Your task to perform on an android device: Open eBay Image 0: 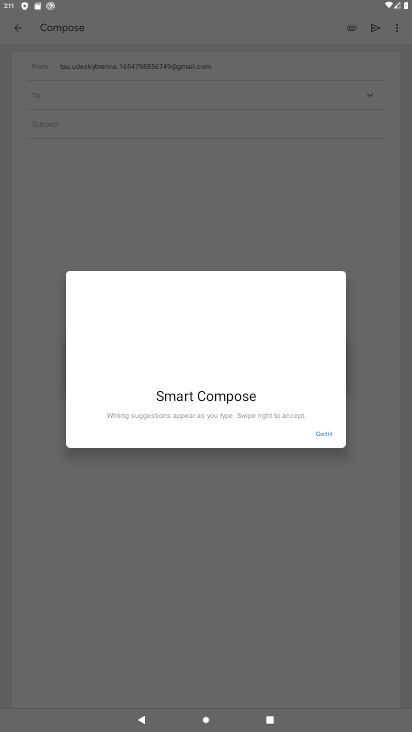
Step 0: press home button
Your task to perform on an android device: Open eBay Image 1: 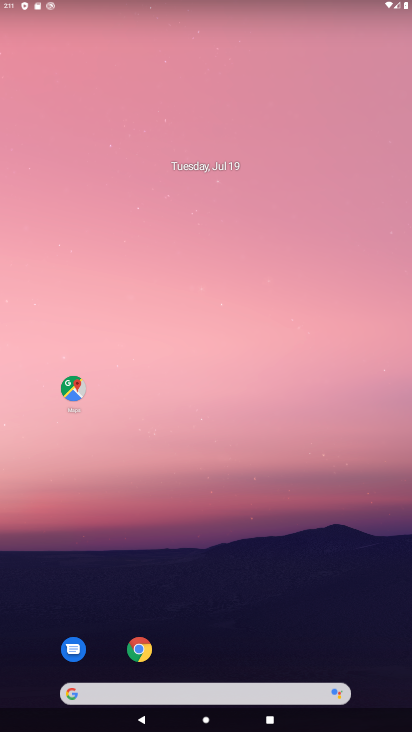
Step 1: drag from (217, 648) to (233, 101)
Your task to perform on an android device: Open eBay Image 2: 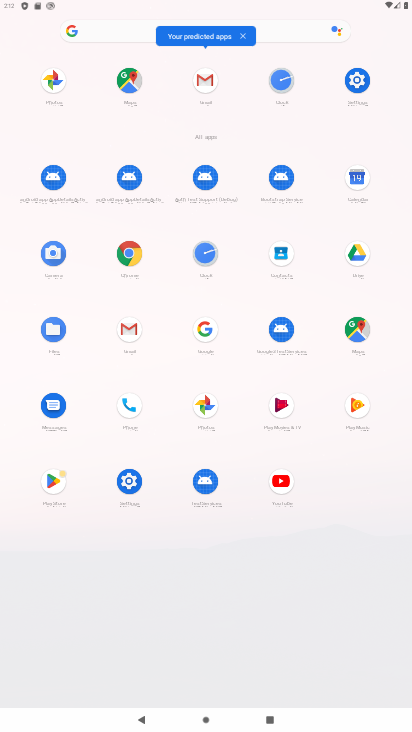
Step 2: click (207, 341)
Your task to perform on an android device: Open eBay Image 3: 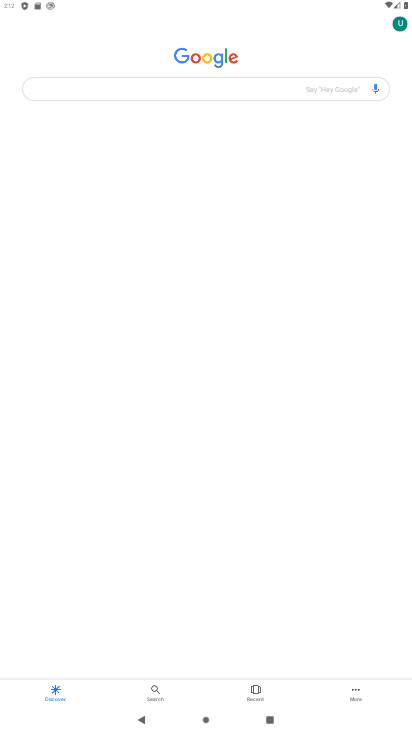
Step 3: click (192, 92)
Your task to perform on an android device: Open eBay Image 4: 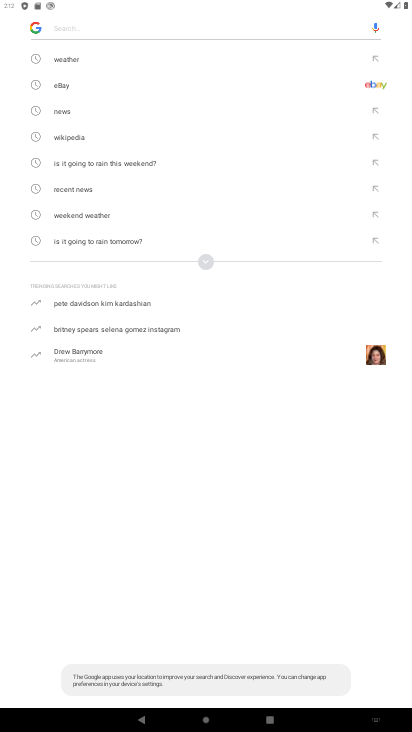
Step 4: click (61, 87)
Your task to perform on an android device: Open eBay Image 5: 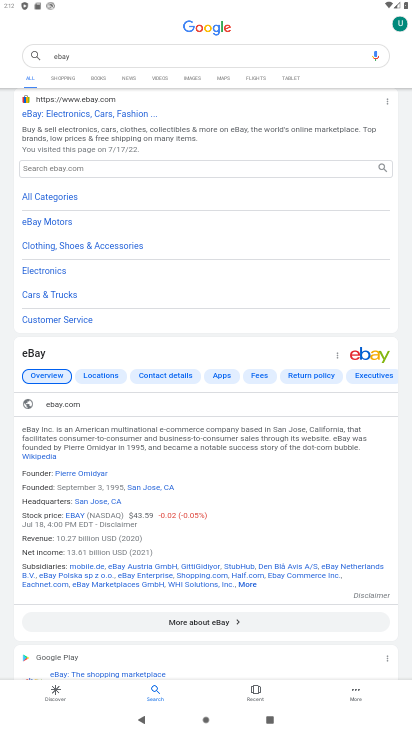
Step 5: click (96, 118)
Your task to perform on an android device: Open eBay Image 6: 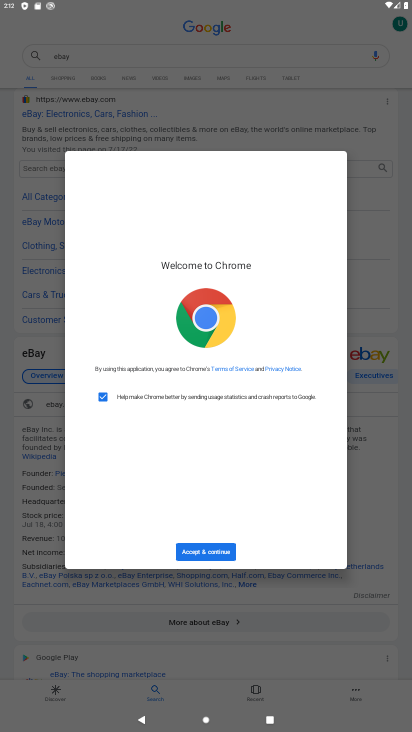
Step 6: click (198, 550)
Your task to perform on an android device: Open eBay Image 7: 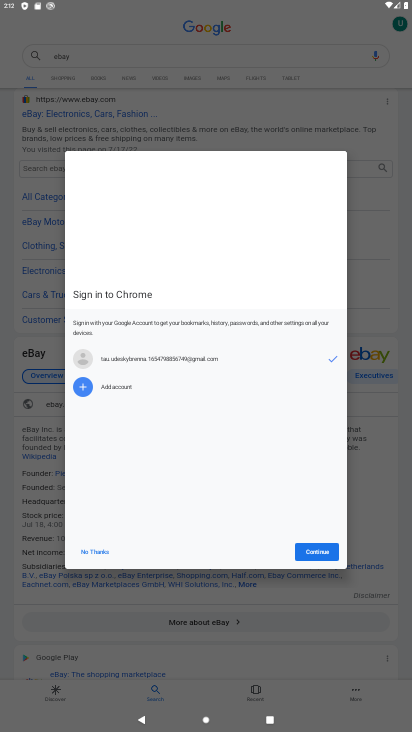
Step 7: click (314, 552)
Your task to perform on an android device: Open eBay Image 8: 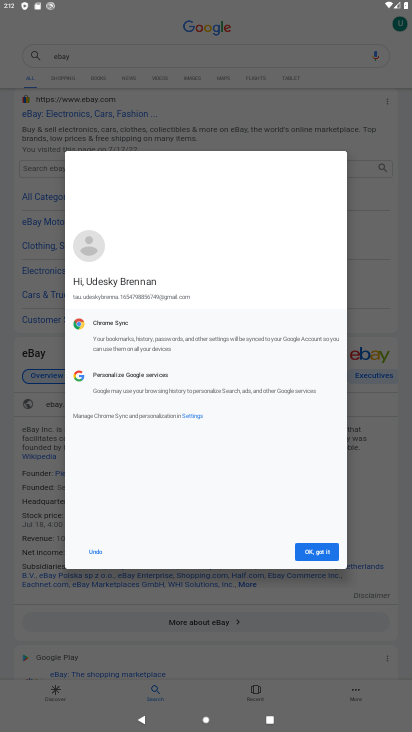
Step 8: click (314, 552)
Your task to perform on an android device: Open eBay Image 9: 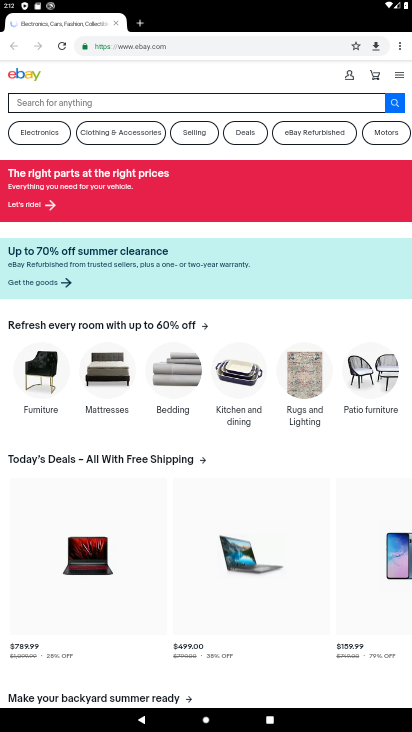
Step 9: task complete